Your task to perform on an android device: Open calendar and show me the fourth week of next month Image 0: 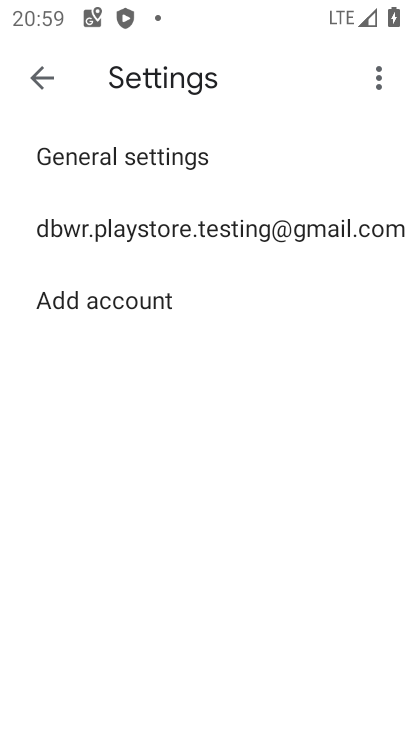
Step 0: press home button
Your task to perform on an android device: Open calendar and show me the fourth week of next month Image 1: 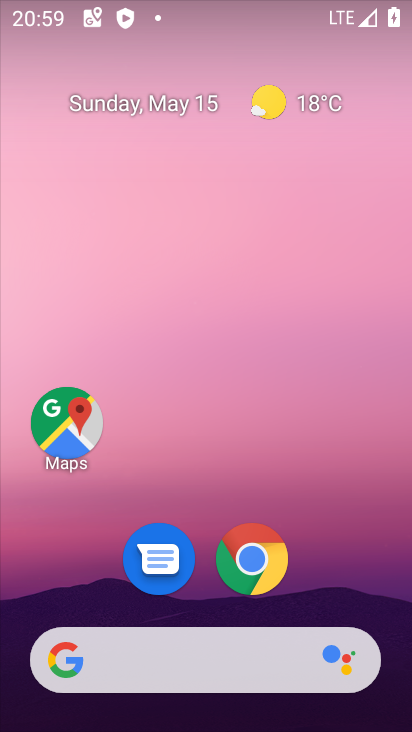
Step 1: drag from (301, 479) to (209, 111)
Your task to perform on an android device: Open calendar and show me the fourth week of next month Image 2: 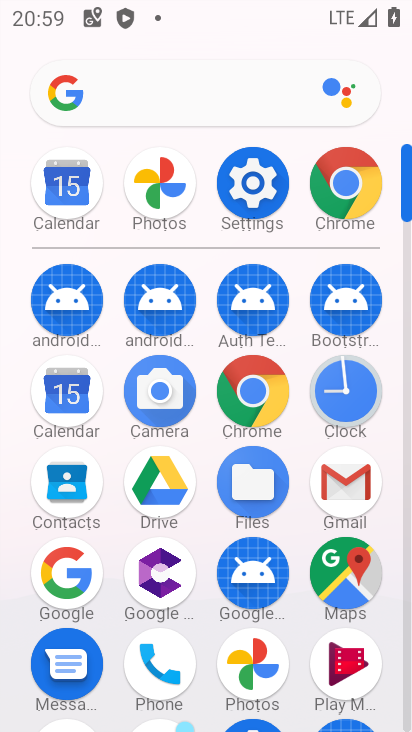
Step 2: click (68, 402)
Your task to perform on an android device: Open calendar and show me the fourth week of next month Image 3: 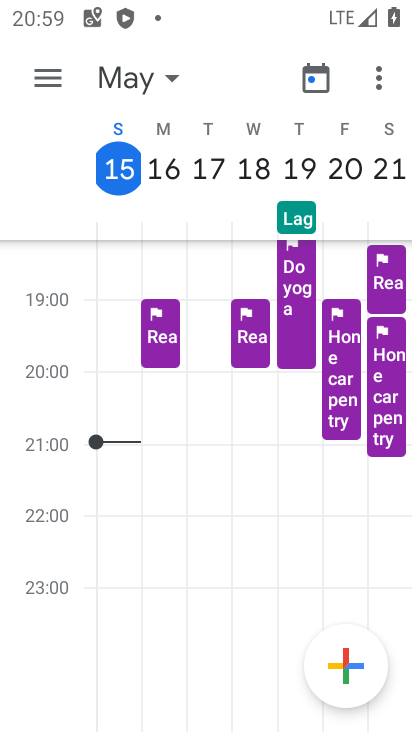
Step 3: click (170, 83)
Your task to perform on an android device: Open calendar and show me the fourth week of next month Image 4: 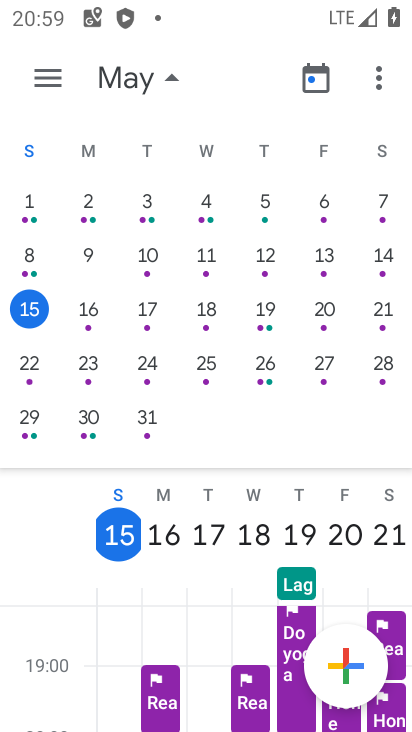
Step 4: drag from (375, 315) to (37, 305)
Your task to perform on an android device: Open calendar and show me the fourth week of next month Image 5: 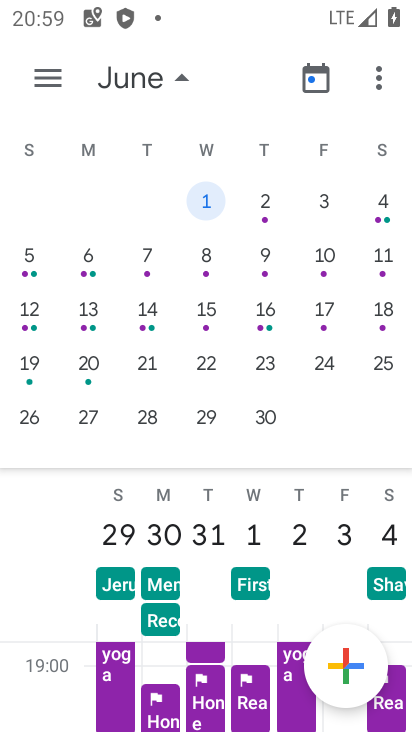
Step 5: click (203, 362)
Your task to perform on an android device: Open calendar and show me the fourth week of next month Image 6: 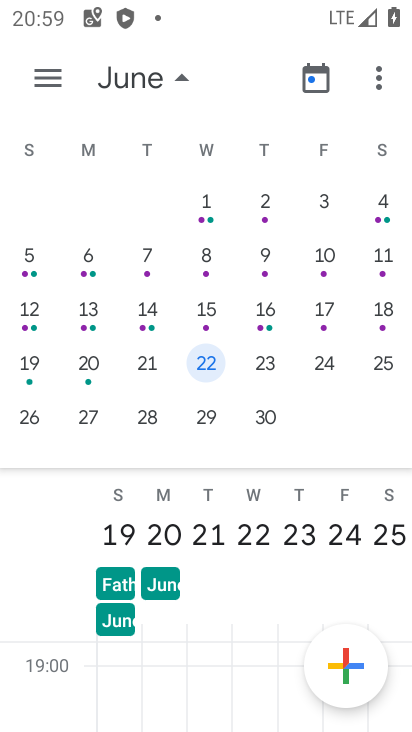
Step 6: drag from (253, 574) to (203, 263)
Your task to perform on an android device: Open calendar and show me the fourth week of next month Image 7: 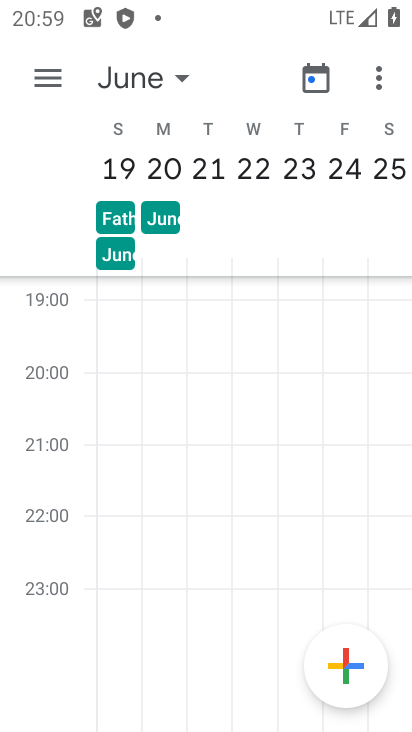
Step 7: click (229, 416)
Your task to perform on an android device: Open calendar and show me the fourth week of next month Image 8: 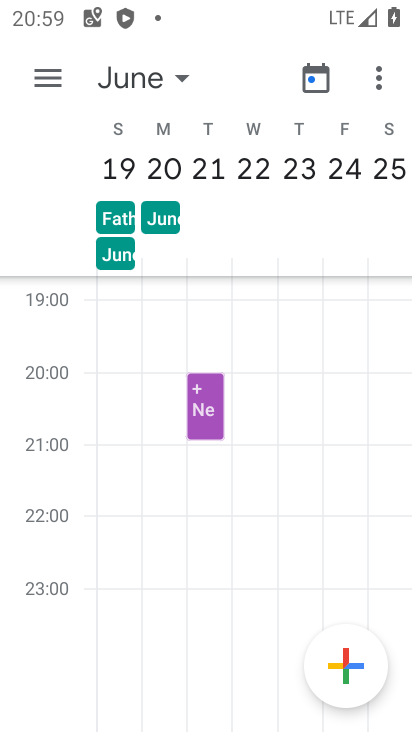
Step 8: task complete